Your task to perform on an android device: turn off improve location accuracy Image 0: 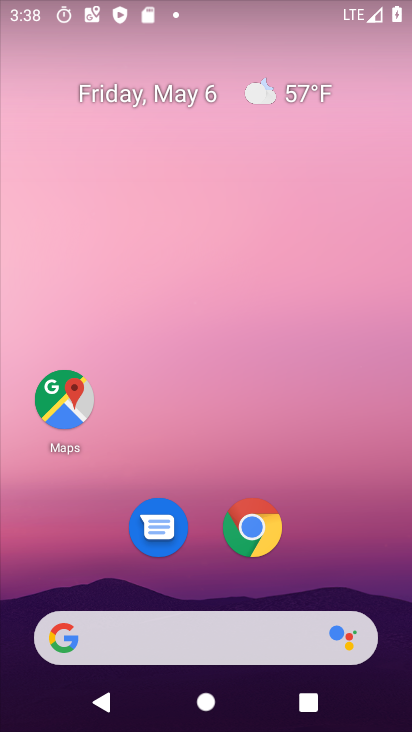
Step 0: drag from (341, 552) to (313, 39)
Your task to perform on an android device: turn off improve location accuracy Image 1: 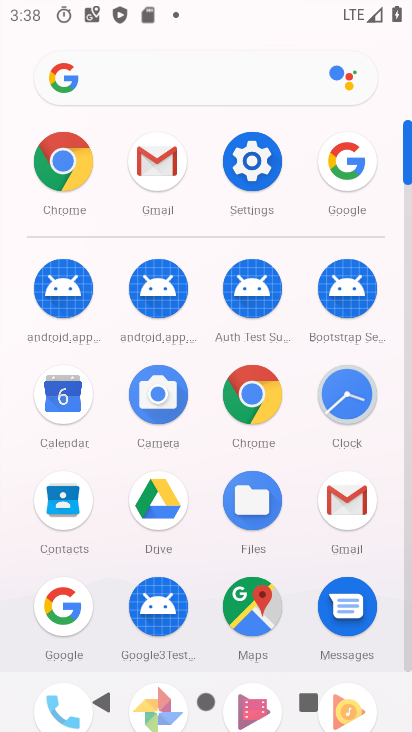
Step 1: click (250, 168)
Your task to perform on an android device: turn off improve location accuracy Image 2: 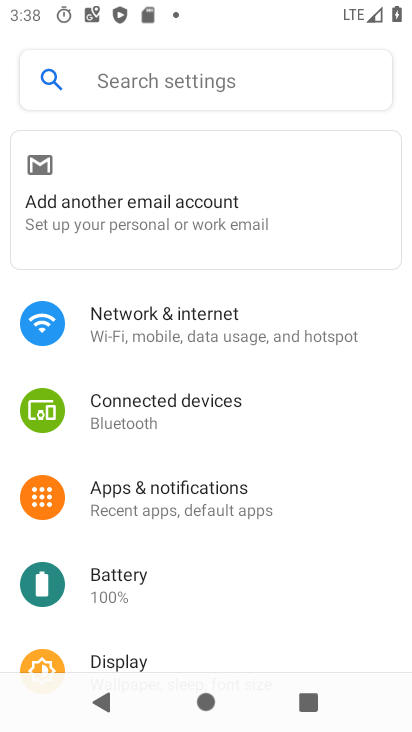
Step 2: drag from (294, 242) to (315, 165)
Your task to perform on an android device: turn off improve location accuracy Image 3: 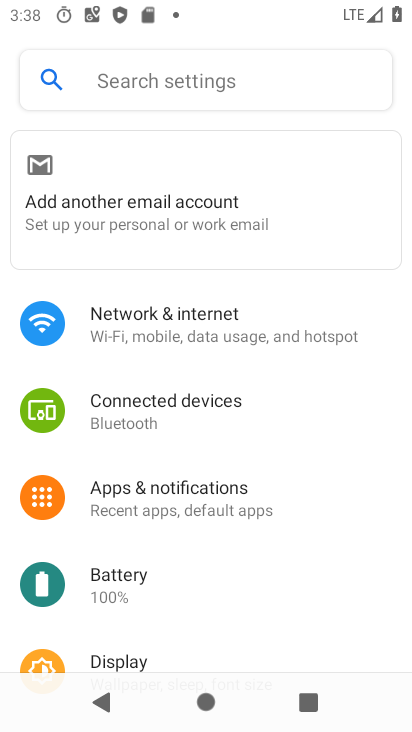
Step 3: drag from (224, 616) to (279, 204)
Your task to perform on an android device: turn off improve location accuracy Image 4: 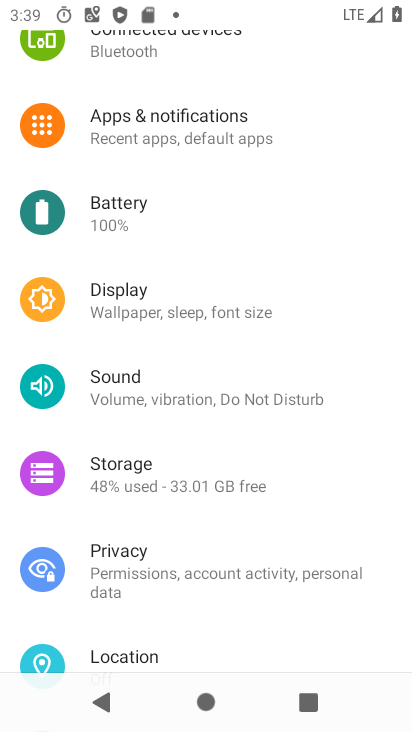
Step 4: click (144, 643)
Your task to perform on an android device: turn off improve location accuracy Image 5: 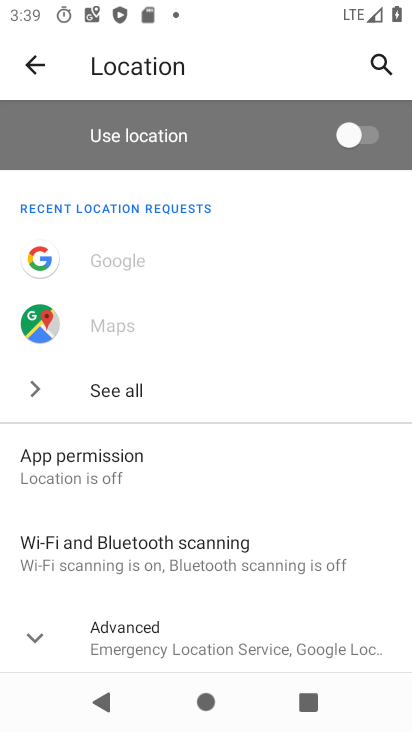
Step 5: drag from (236, 621) to (347, 130)
Your task to perform on an android device: turn off improve location accuracy Image 6: 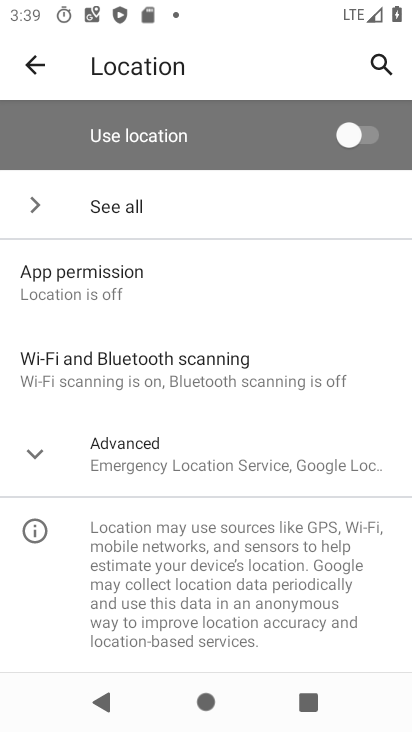
Step 6: drag from (150, 572) to (258, 205)
Your task to perform on an android device: turn off improve location accuracy Image 7: 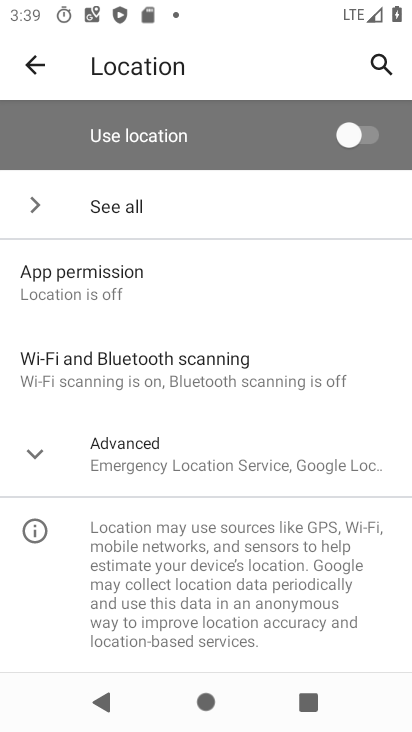
Step 7: click (38, 450)
Your task to perform on an android device: turn off improve location accuracy Image 8: 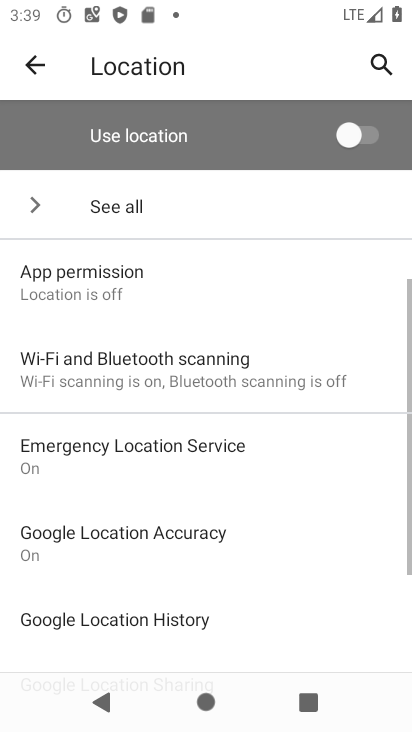
Step 8: click (132, 452)
Your task to perform on an android device: turn off improve location accuracy Image 9: 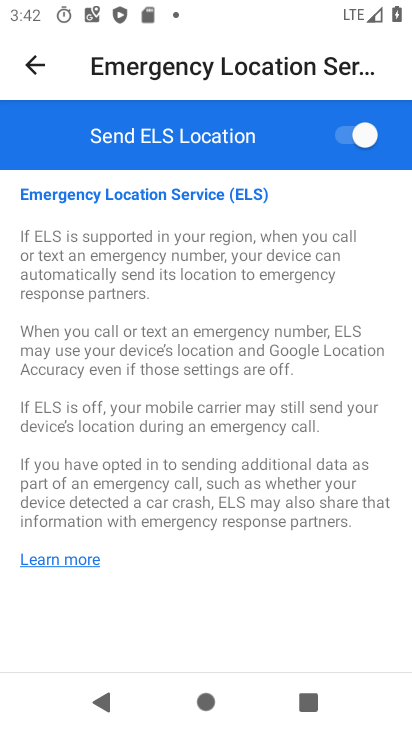
Step 9: press home button
Your task to perform on an android device: turn off improve location accuracy Image 10: 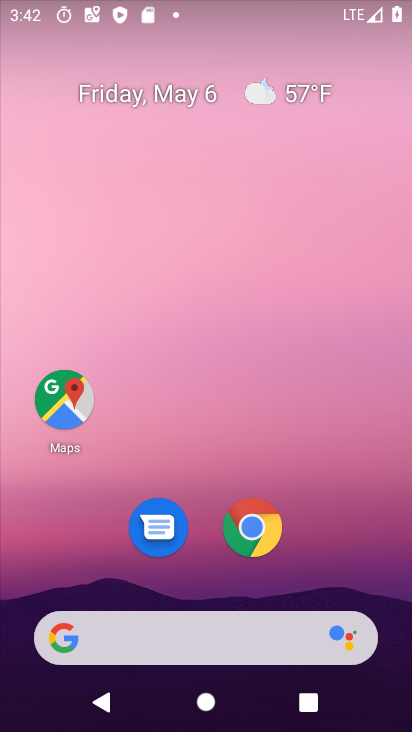
Step 10: drag from (329, 591) to (321, 234)
Your task to perform on an android device: turn off improve location accuracy Image 11: 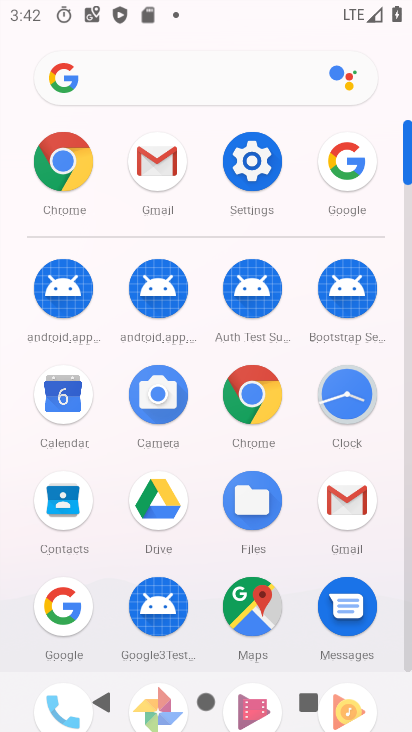
Step 11: click (259, 164)
Your task to perform on an android device: turn off improve location accuracy Image 12: 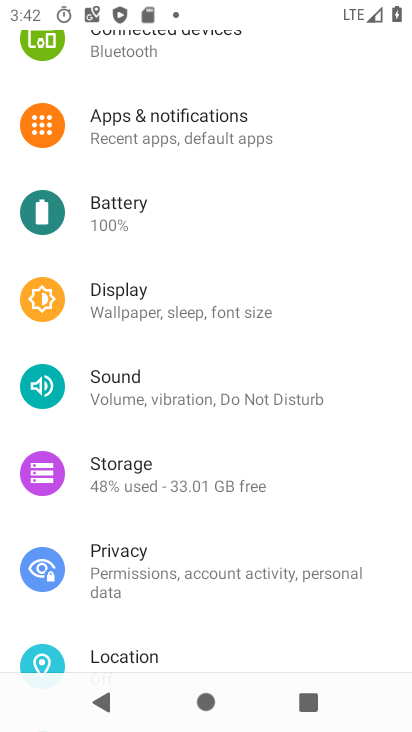
Step 12: drag from (195, 566) to (181, 295)
Your task to perform on an android device: turn off improve location accuracy Image 13: 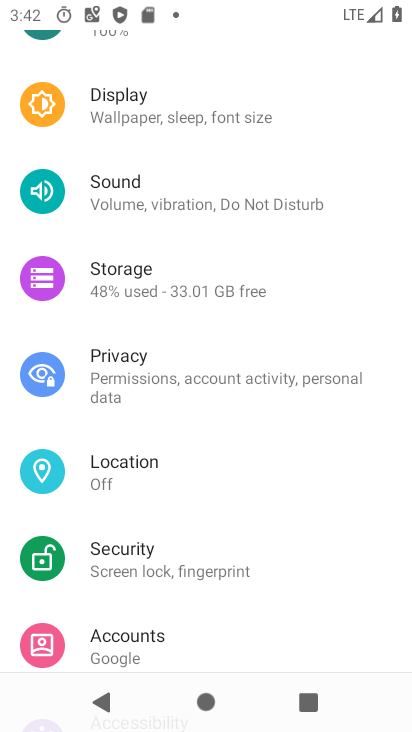
Step 13: click (144, 477)
Your task to perform on an android device: turn off improve location accuracy Image 14: 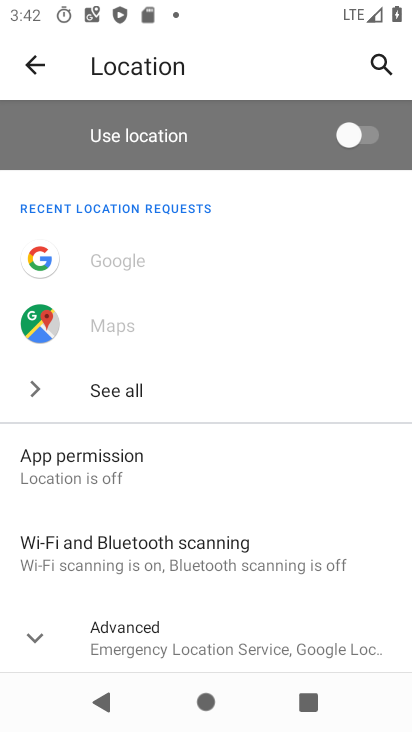
Step 14: click (125, 635)
Your task to perform on an android device: turn off improve location accuracy Image 15: 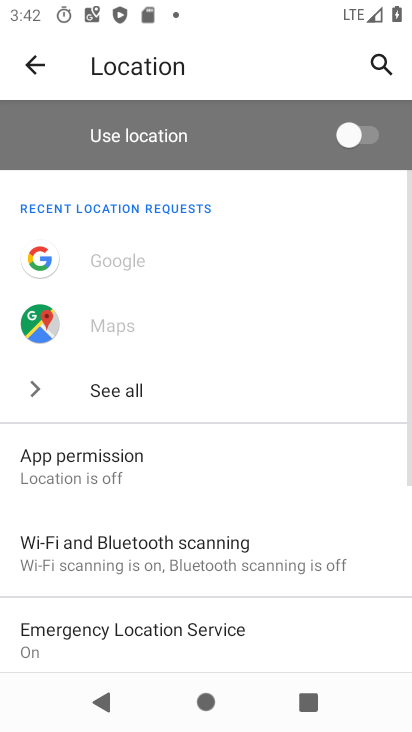
Step 15: drag from (130, 632) to (208, 325)
Your task to perform on an android device: turn off improve location accuracy Image 16: 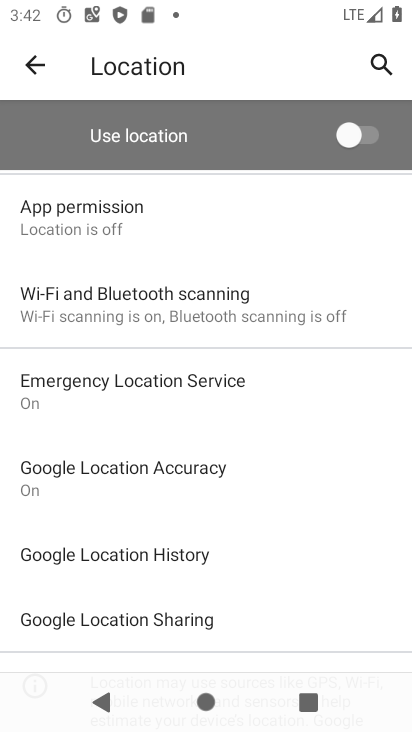
Step 16: click (166, 471)
Your task to perform on an android device: turn off improve location accuracy Image 17: 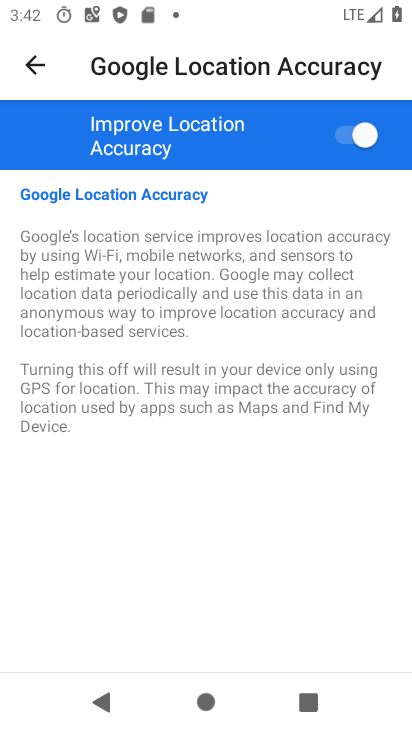
Step 17: click (339, 141)
Your task to perform on an android device: turn off improve location accuracy Image 18: 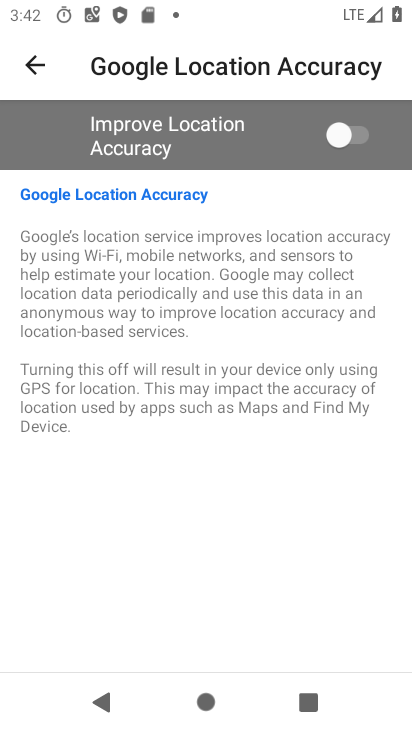
Step 18: task complete